Your task to perform on an android device: Go to Android settings Image 0: 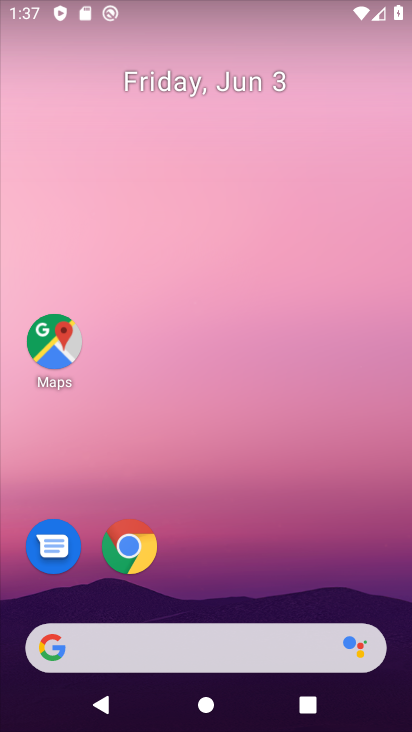
Step 0: drag from (246, 591) to (220, 50)
Your task to perform on an android device: Go to Android settings Image 1: 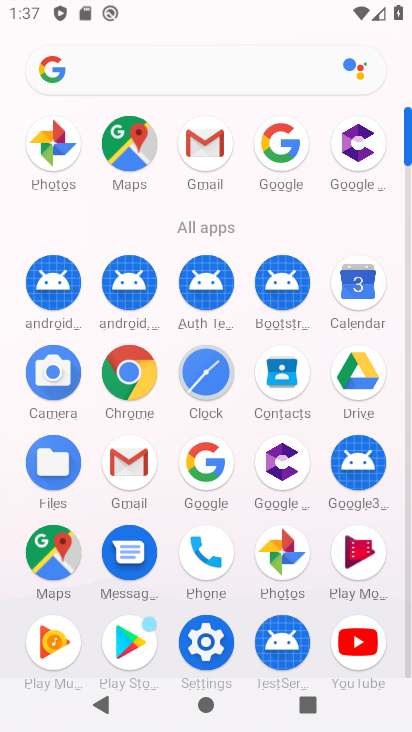
Step 1: click (199, 651)
Your task to perform on an android device: Go to Android settings Image 2: 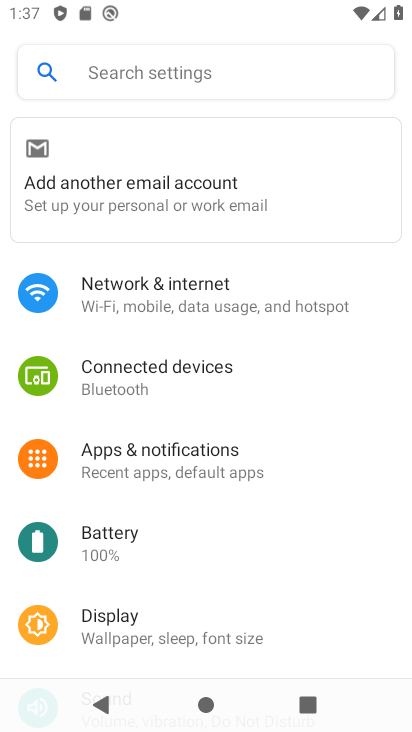
Step 2: task complete